Your task to perform on an android device: Add dell xps to the cart on costco Image 0: 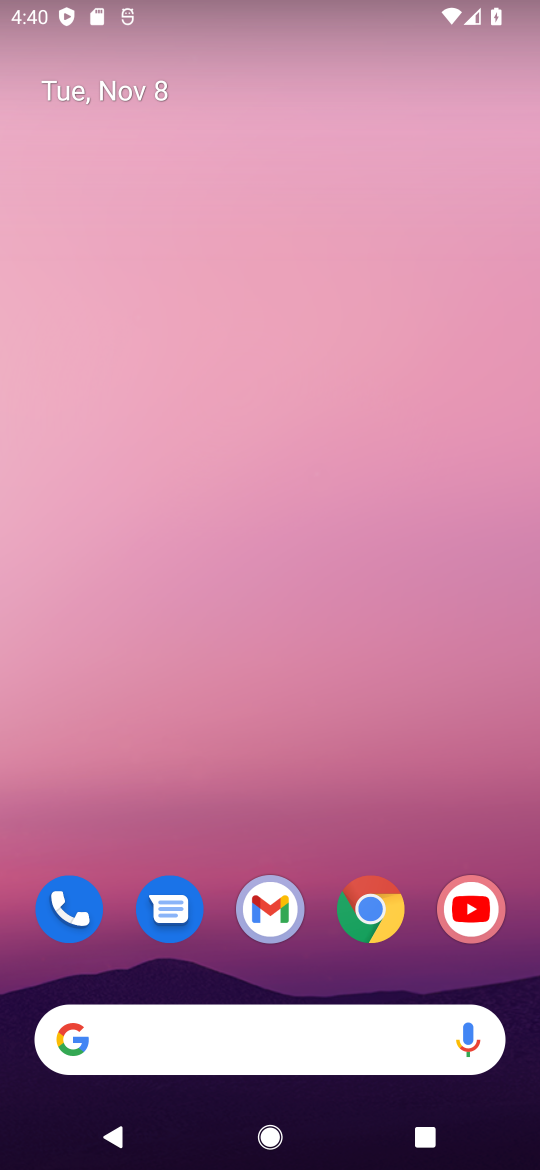
Step 0: press home button
Your task to perform on an android device: Add dell xps to the cart on costco Image 1: 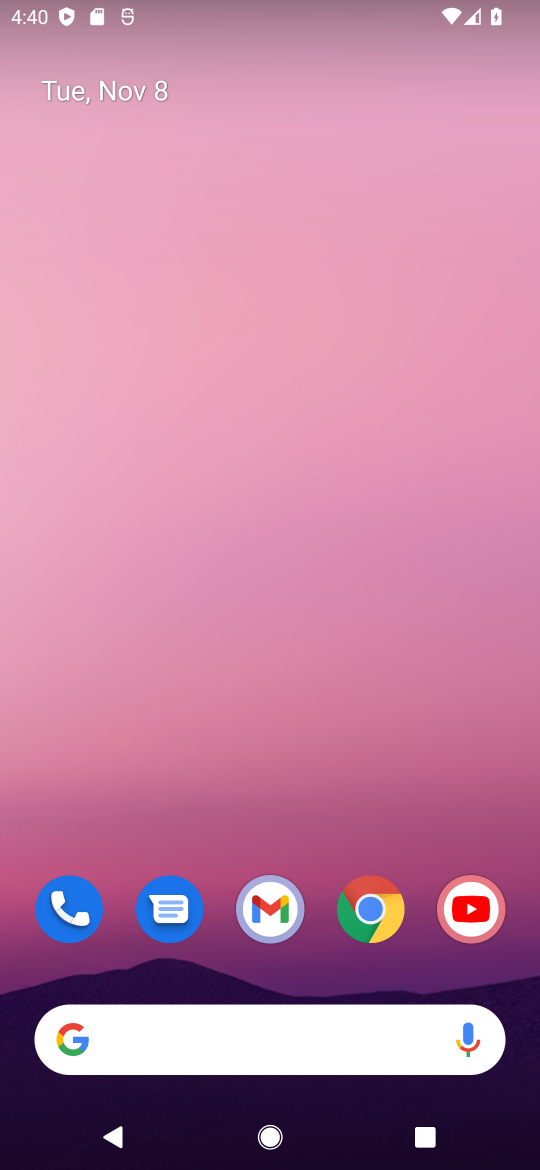
Step 1: click (371, 908)
Your task to perform on an android device: Add dell xps to the cart on costco Image 2: 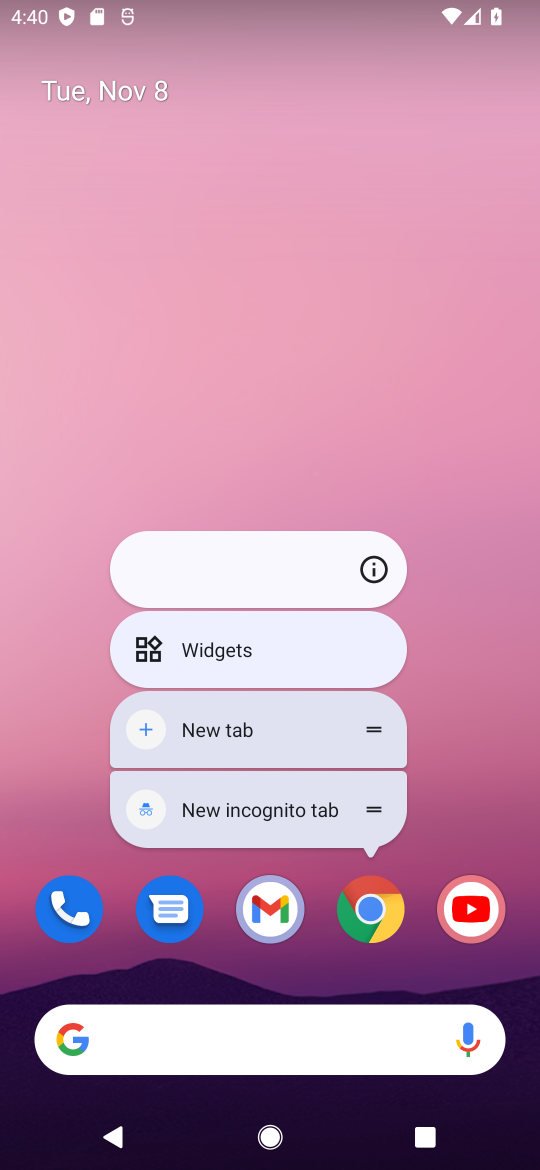
Step 2: click (362, 920)
Your task to perform on an android device: Add dell xps to the cart on costco Image 3: 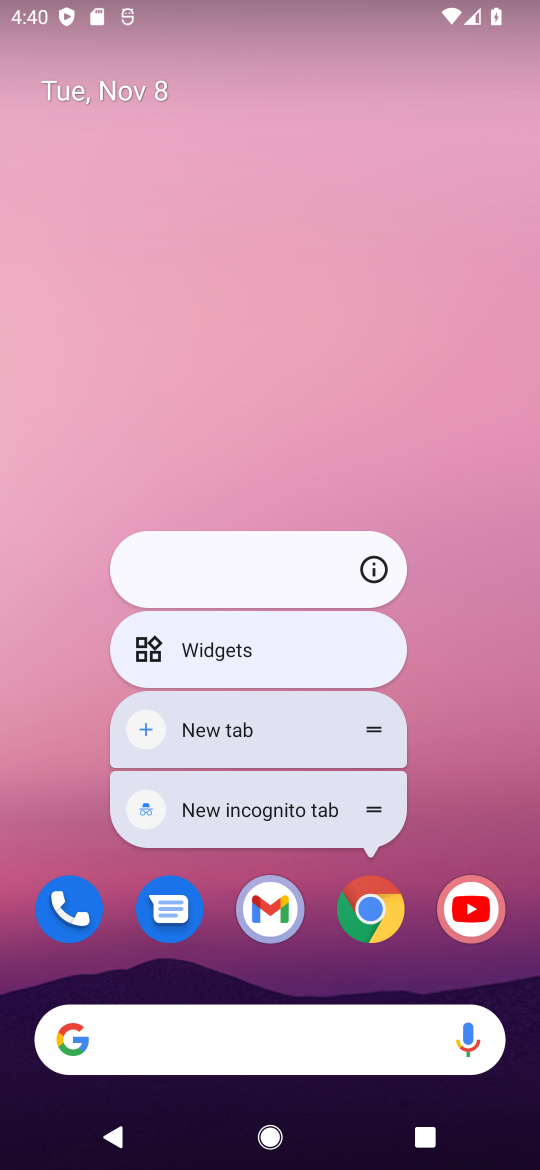
Step 3: click (362, 908)
Your task to perform on an android device: Add dell xps to the cart on costco Image 4: 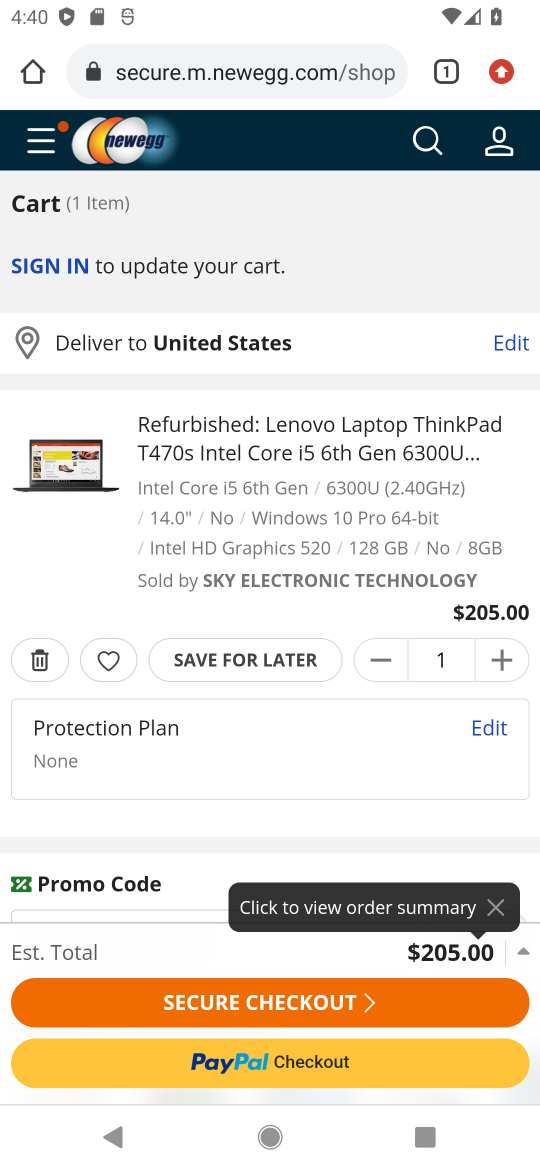
Step 4: click (229, 65)
Your task to perform on an android device: Add dell xps to the cart on costco Image 5: 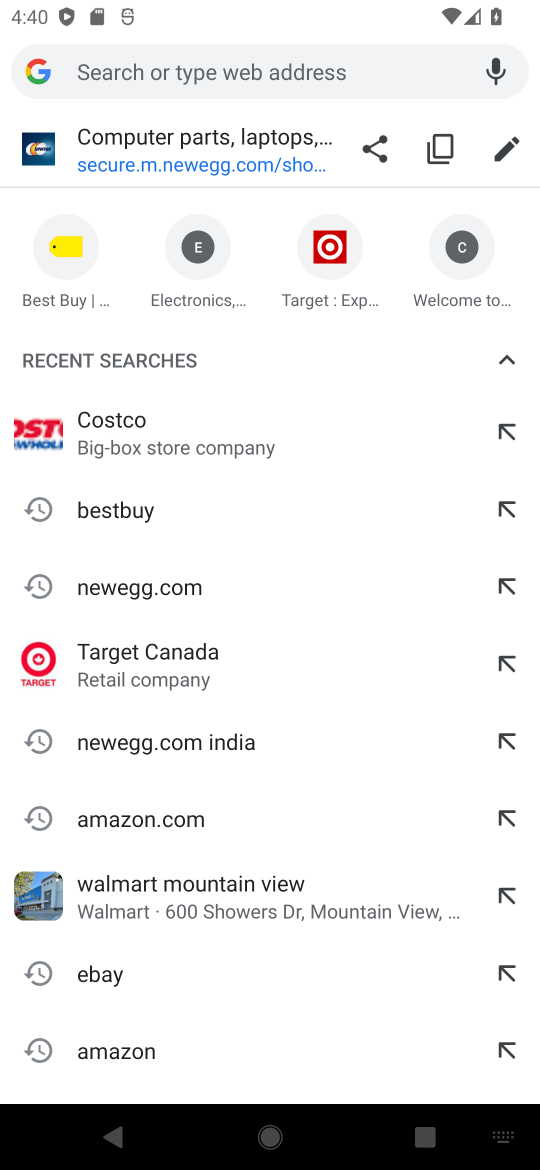
Step 5: click (108, 417)
Your task to perform on an android device: Add dell xps to the cart on costco Image 6: 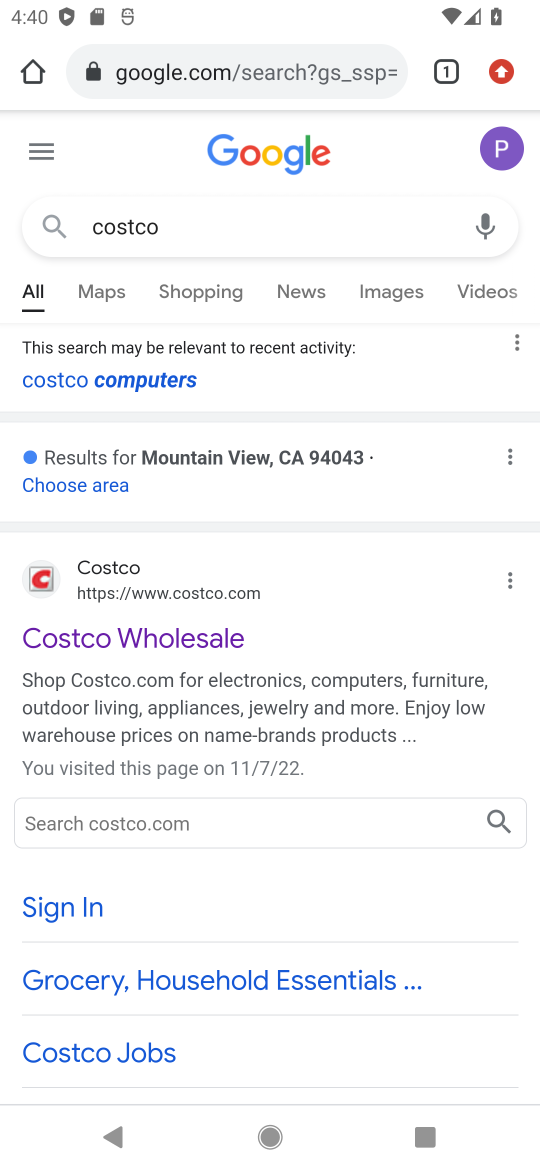
Step 6: click (89, 637)
Your task to perform on an android device: Add dell xps to the cart on costco Image 7: 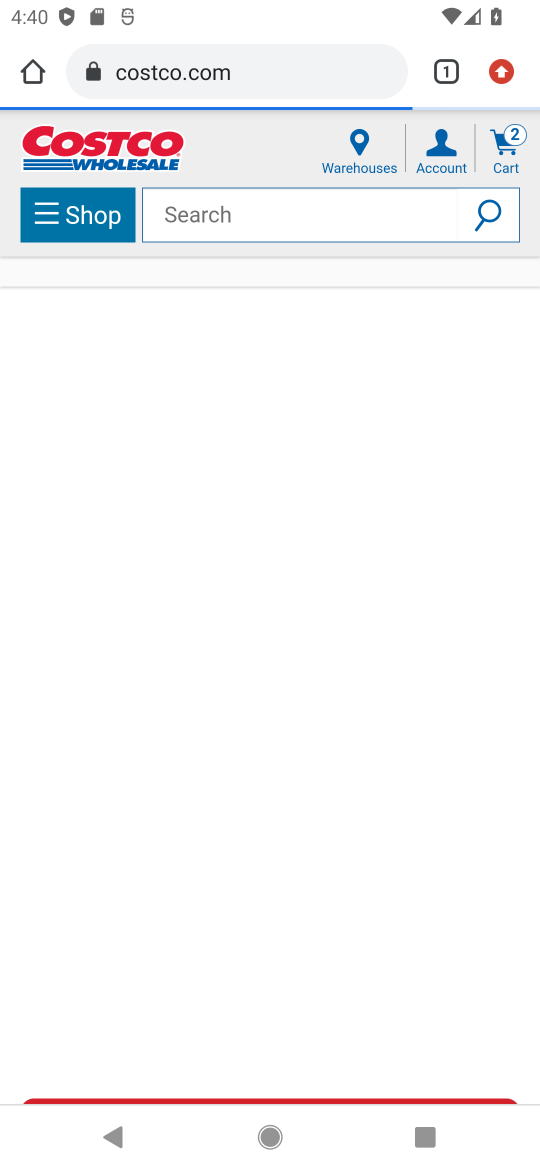
Step 7: click (241, 215)
Your task to perform on an android device: Add dell xps to the cart on costco Image 8: 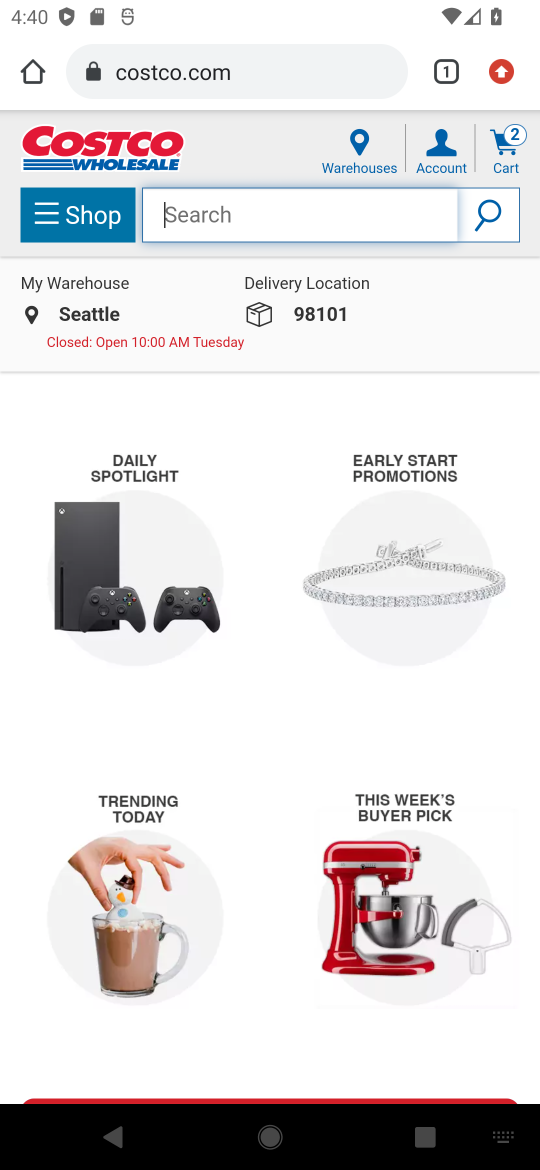
Step 8: type " dell xps"
Your task to perform on an android device: Add dell xps to the cart on costco Image 9: 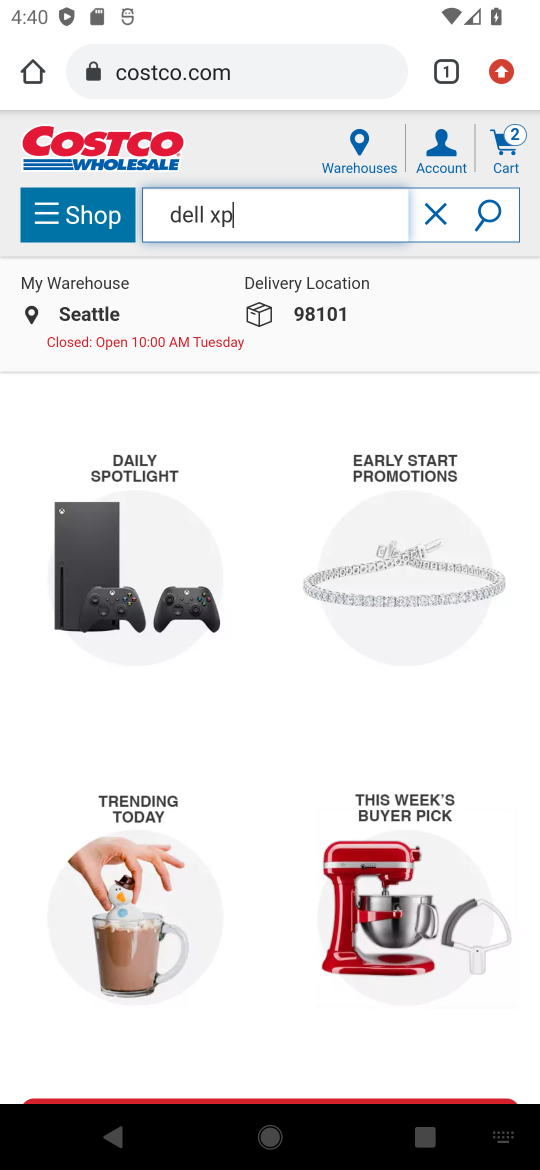
Step 9: press enter
Your task to perform on an android device: Add dell xps to the cart on costco Image 10: 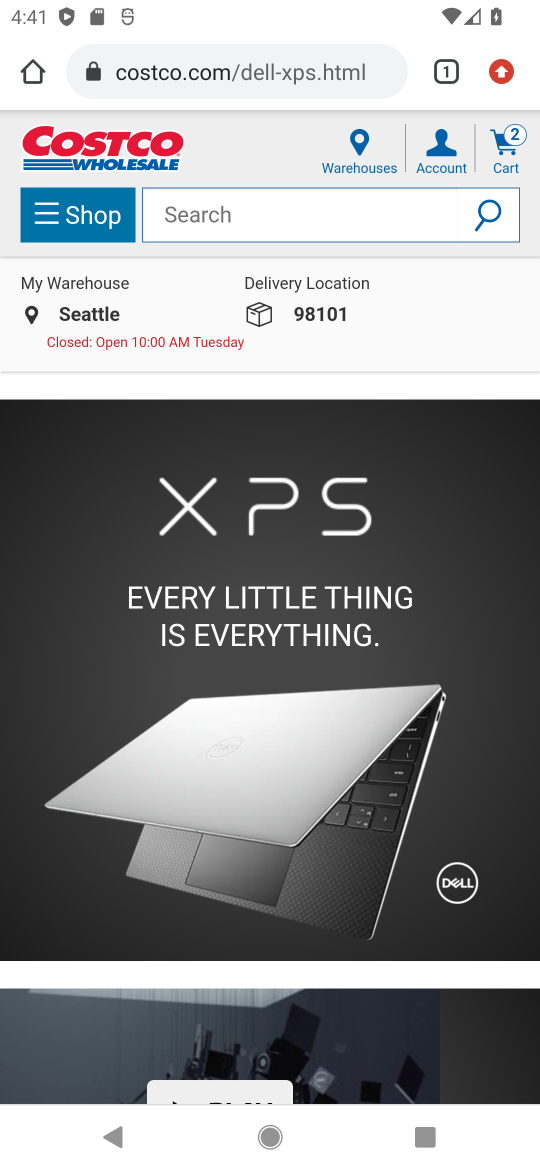
Step 10: drag from (229, 990) to (408, 259)
Your task to perform on an android device: Add dell xps to the cart on costco Image 11: 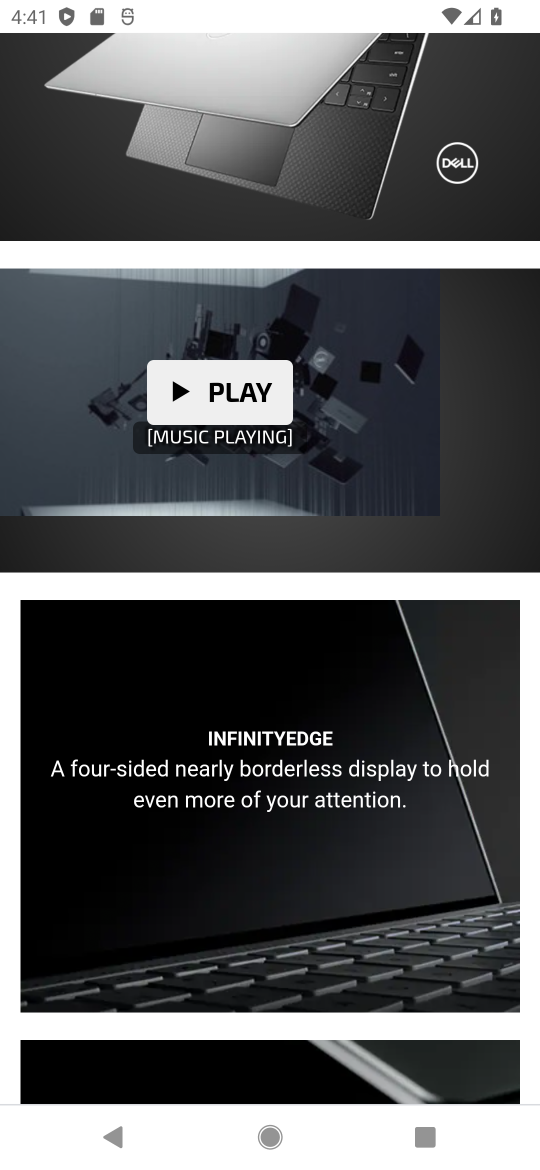
Step 11: drag from (172, 968) to (413, 199)
Your task to perform on an android device: Add dell xps to the cart on costco Image 12: 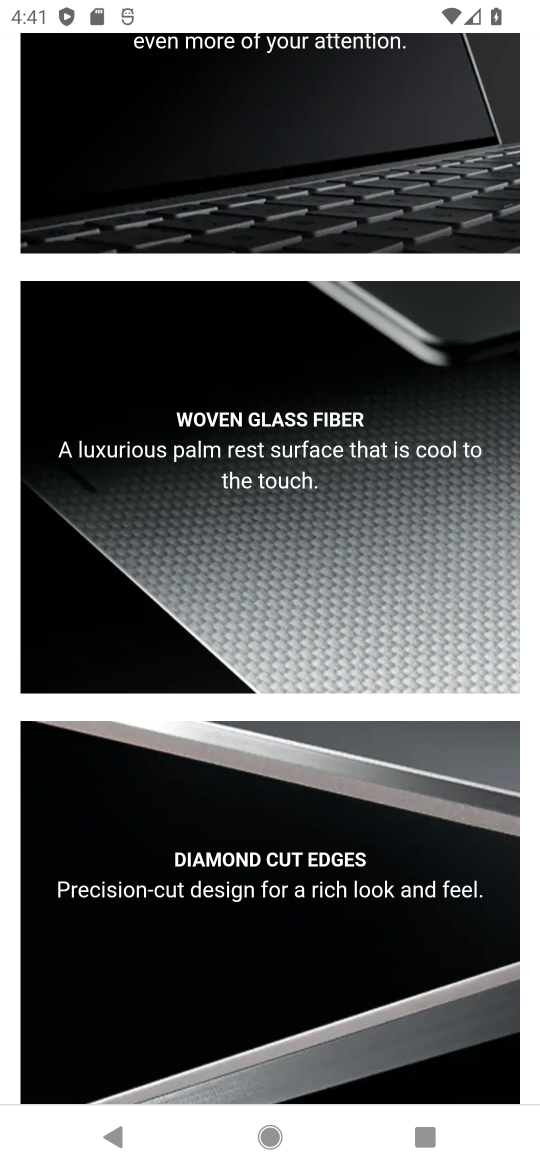
Step 12: drag from (408, 41) to (332, 930)
Your task to perform on an android device: Add dell xps to the cart on costco Image 13: 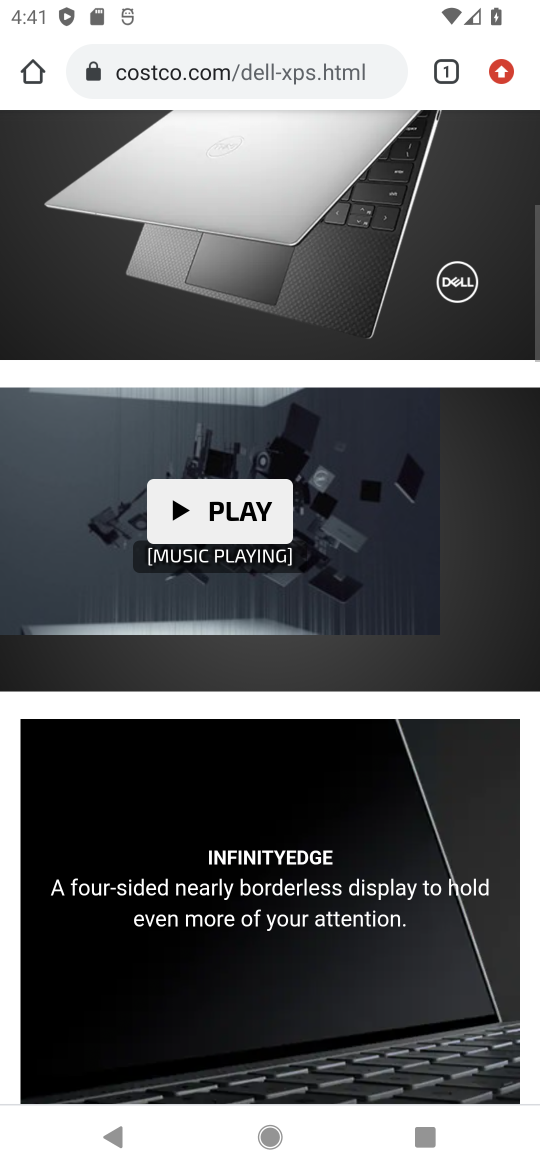
Step 13: drag from (365, 364) to (271, 1048)
Your task to perform on an android device: Add dell xps to the cart on costco Image 14: 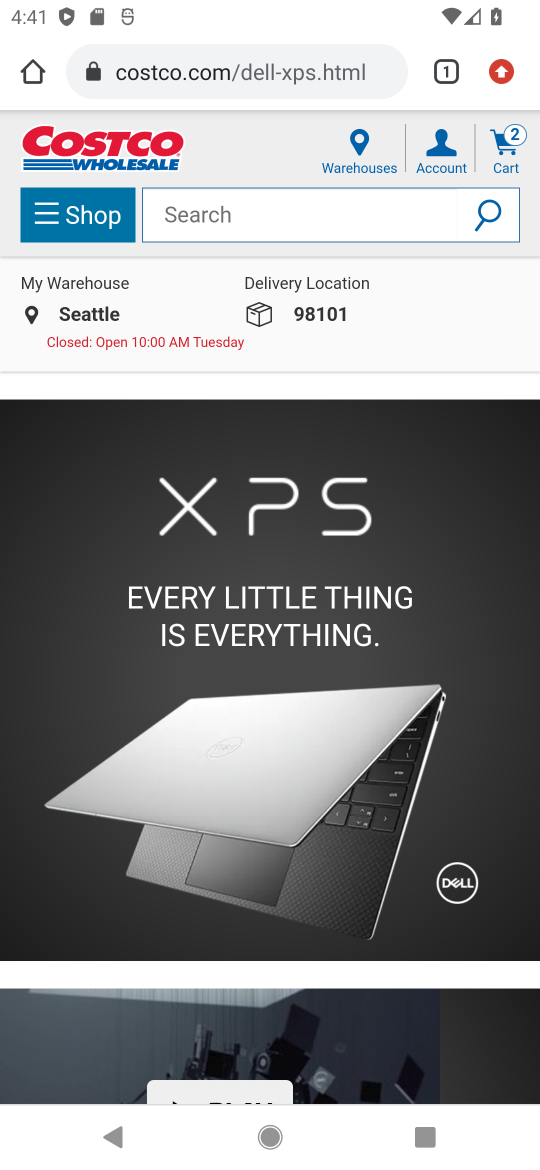
Step 14: click (270, 210)
Your task to perform on an android device: Add dell xps to the cart on costco Image 15: 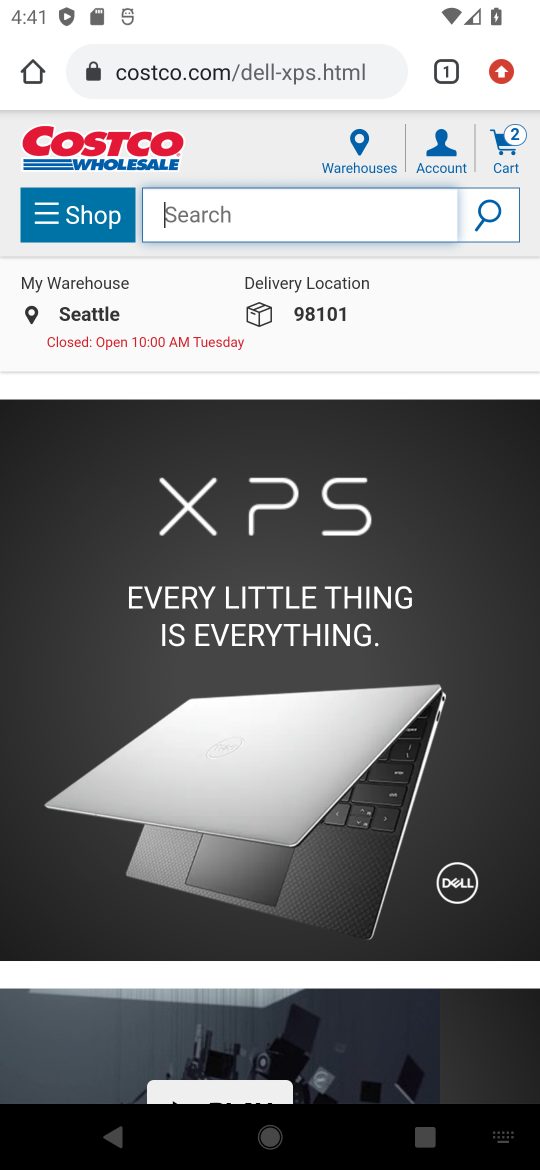
Step 15: click (223, 214)
Your task to perform on an android device: Add dell xps to the cart on costco Image 16: 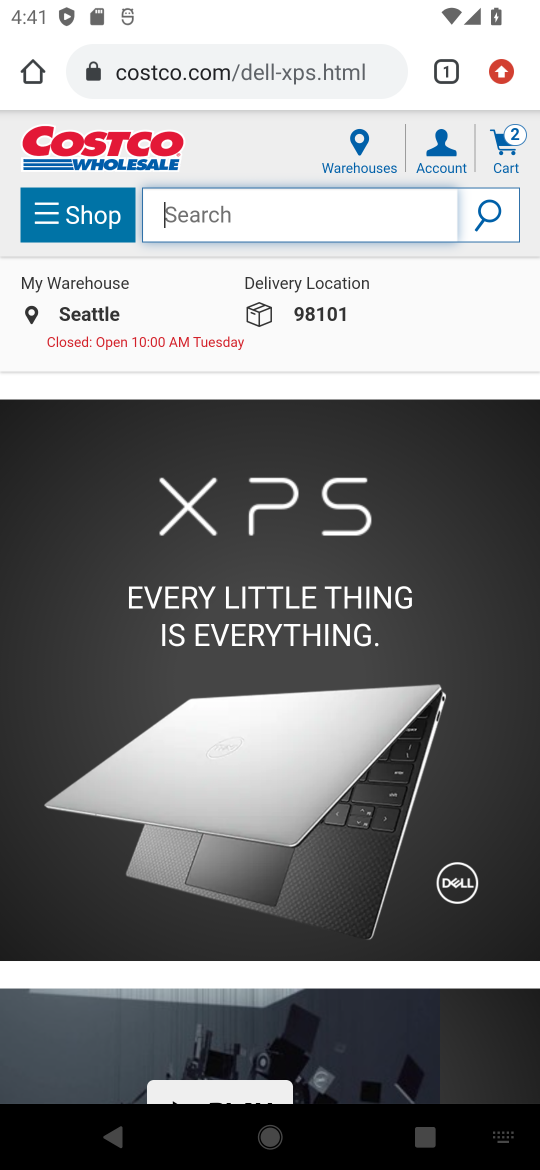
Step 16: type "dell xps"
Your task to perform on an android device: Add dell xps to the cart on costco Image 17: 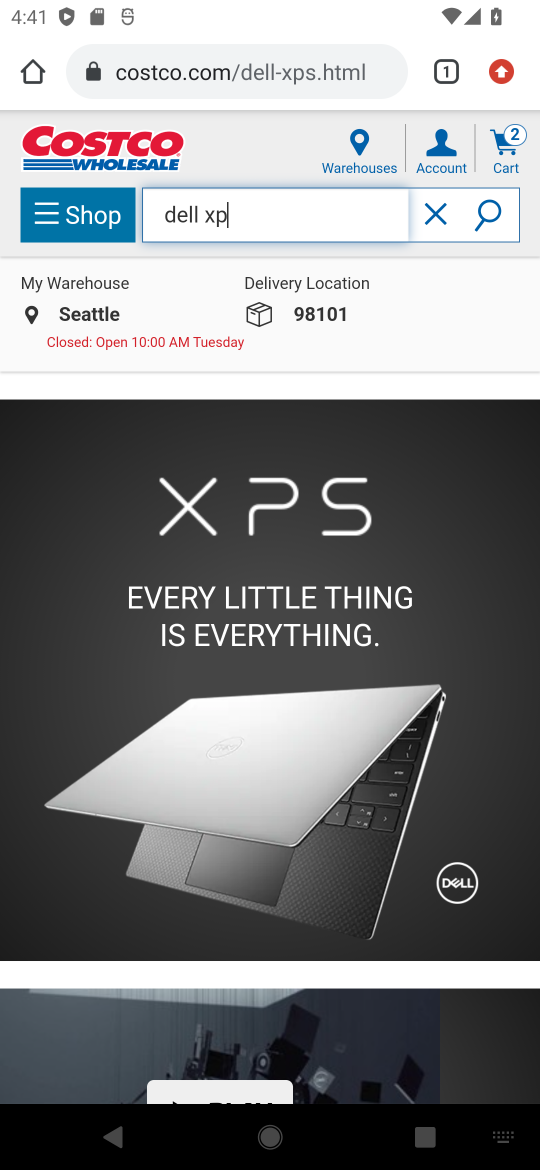
Step 17: press enter
Your task to perform on an android device: Add dell xps to the cart on costco Image 18: 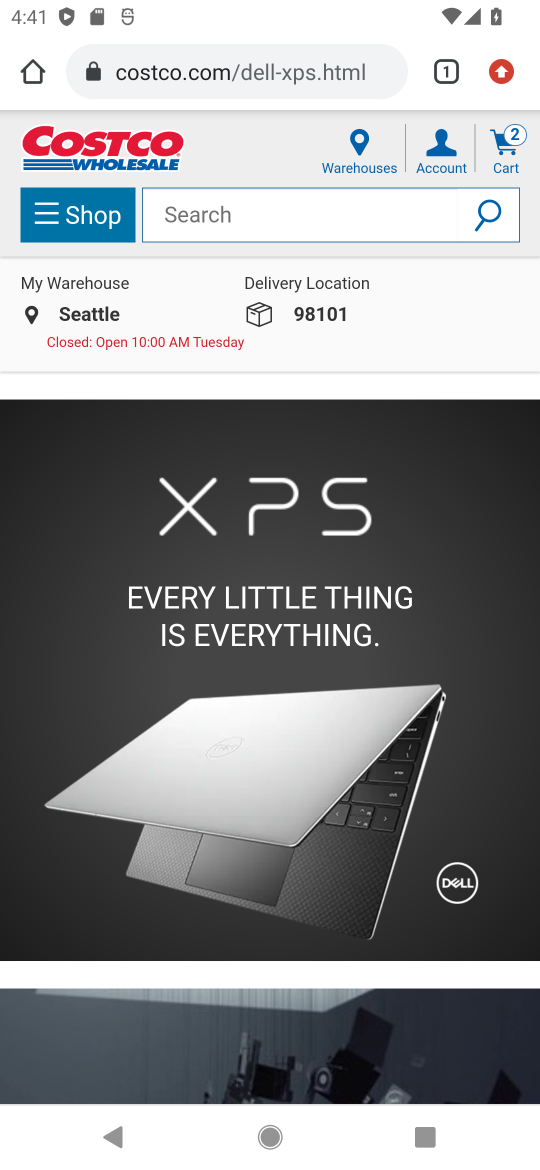
Step 18: task complete